Your task to perform on an android device: move a message to another label in the gmail app Image 0: 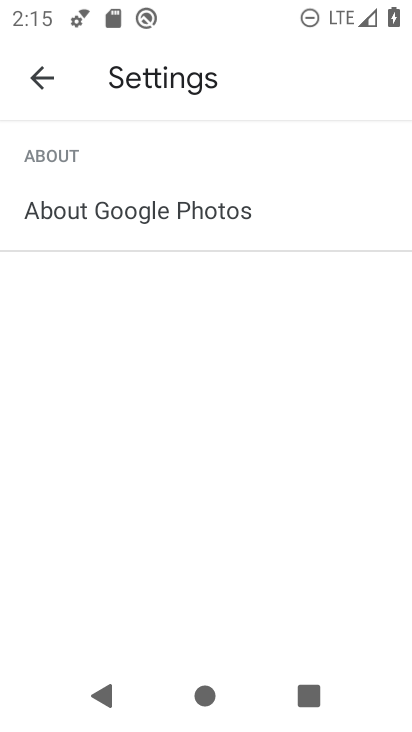
Step 0: press home button
Your task to perform on an android device: move a message to another label in the gmail app Image 1: 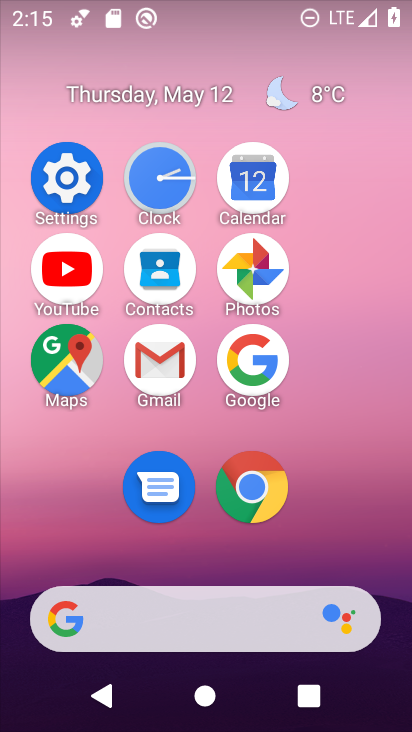
Step 1: click (163, 379)
Your task to perform on an android device: move a message to another label in the gmail app Image 2: 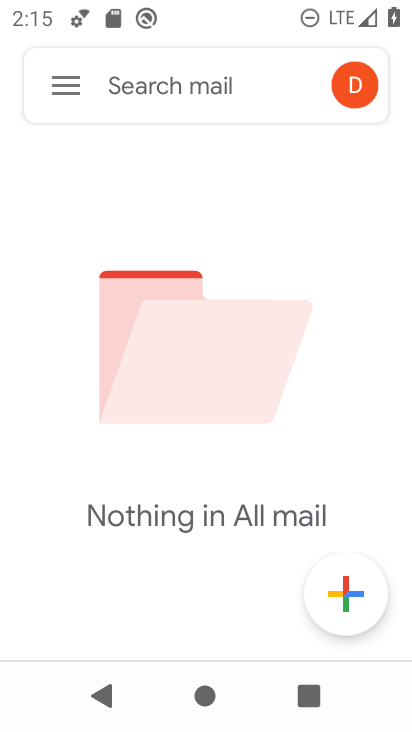
Step 2: click (52, 80)
Your task to perform on an android device: move a message to another label in the gmail app Image 3: 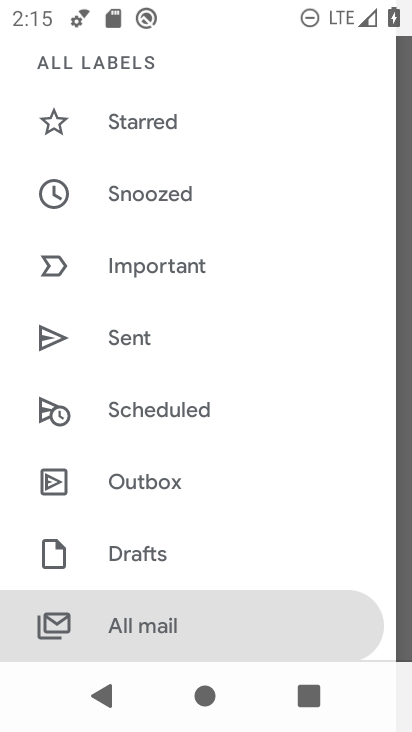
Step 3: click (192, 617)
Your task to perform on an android device: move a message to another label in the gmail app Image 4: 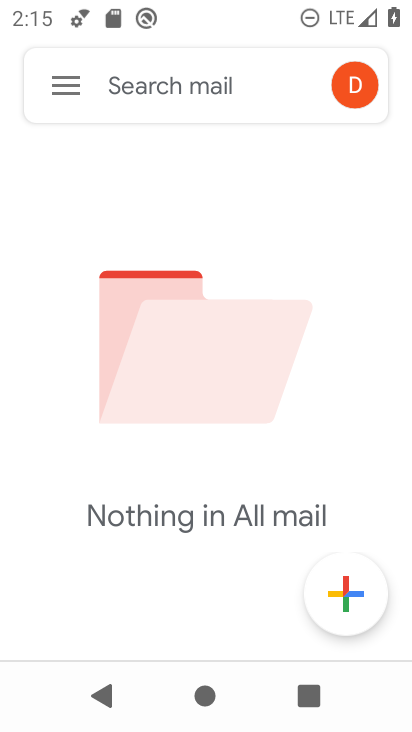
Step 4: task complete